Your task to perform on an android device: install app "Venmo" Image 0: 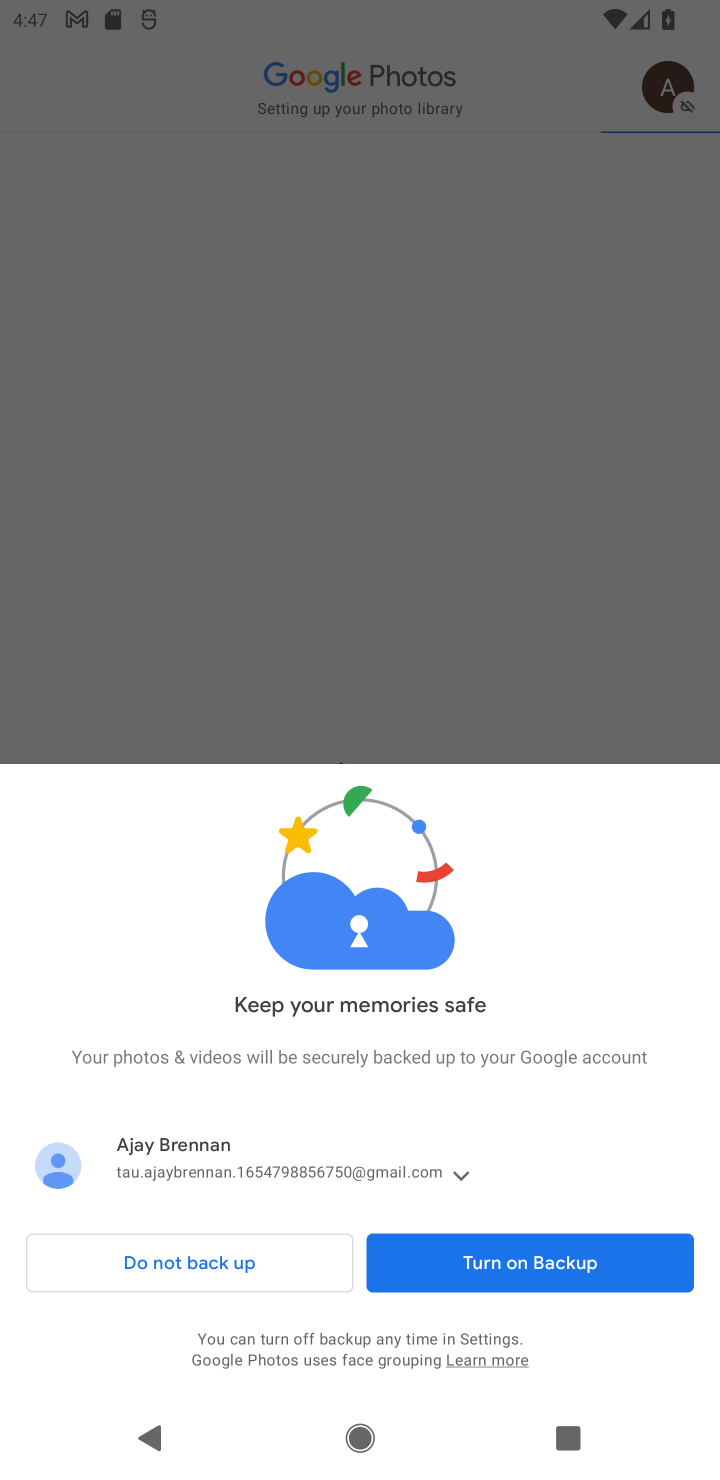
Step 0: press home button
Your task to perform on an android device: install app "Venmo" Image 1: 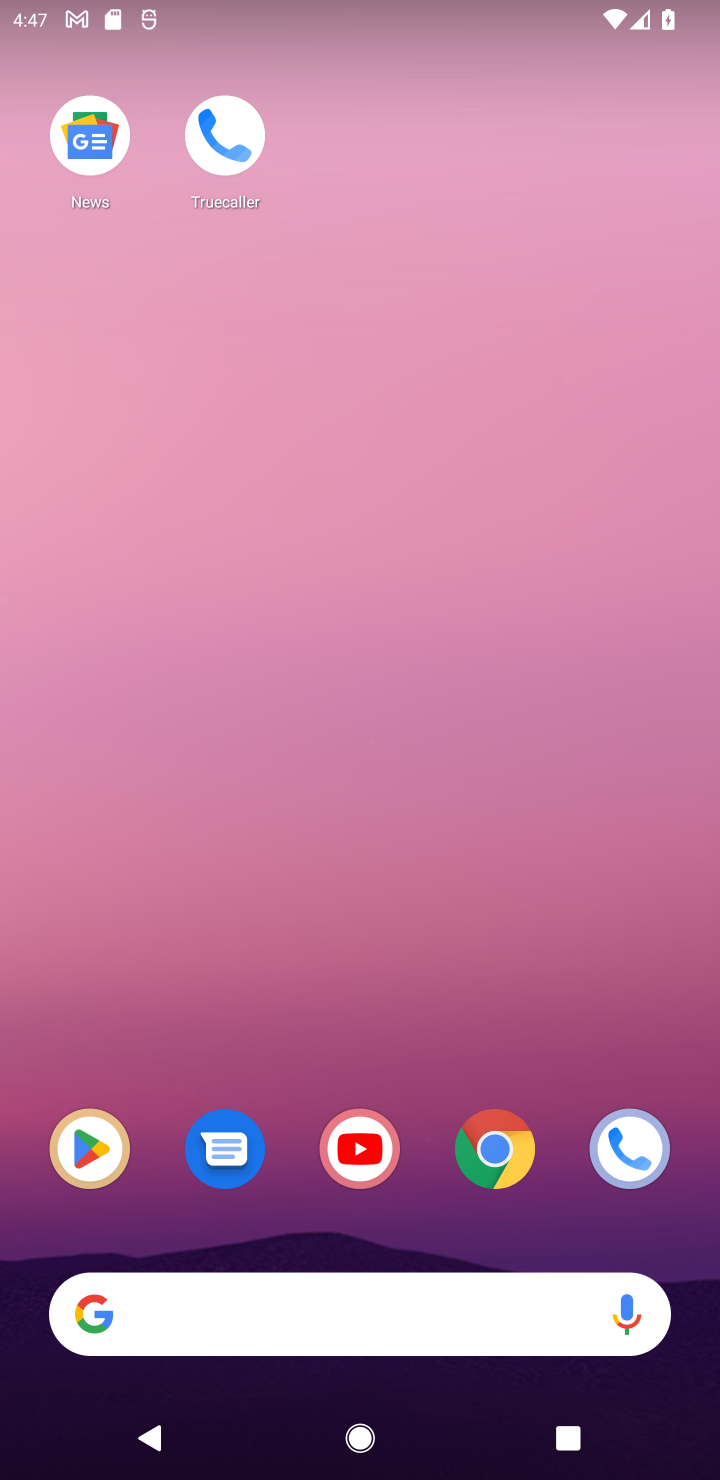
Step 1: click (100, 1163)
Your task to perform on an android device: install app "Venmo" Image 2: 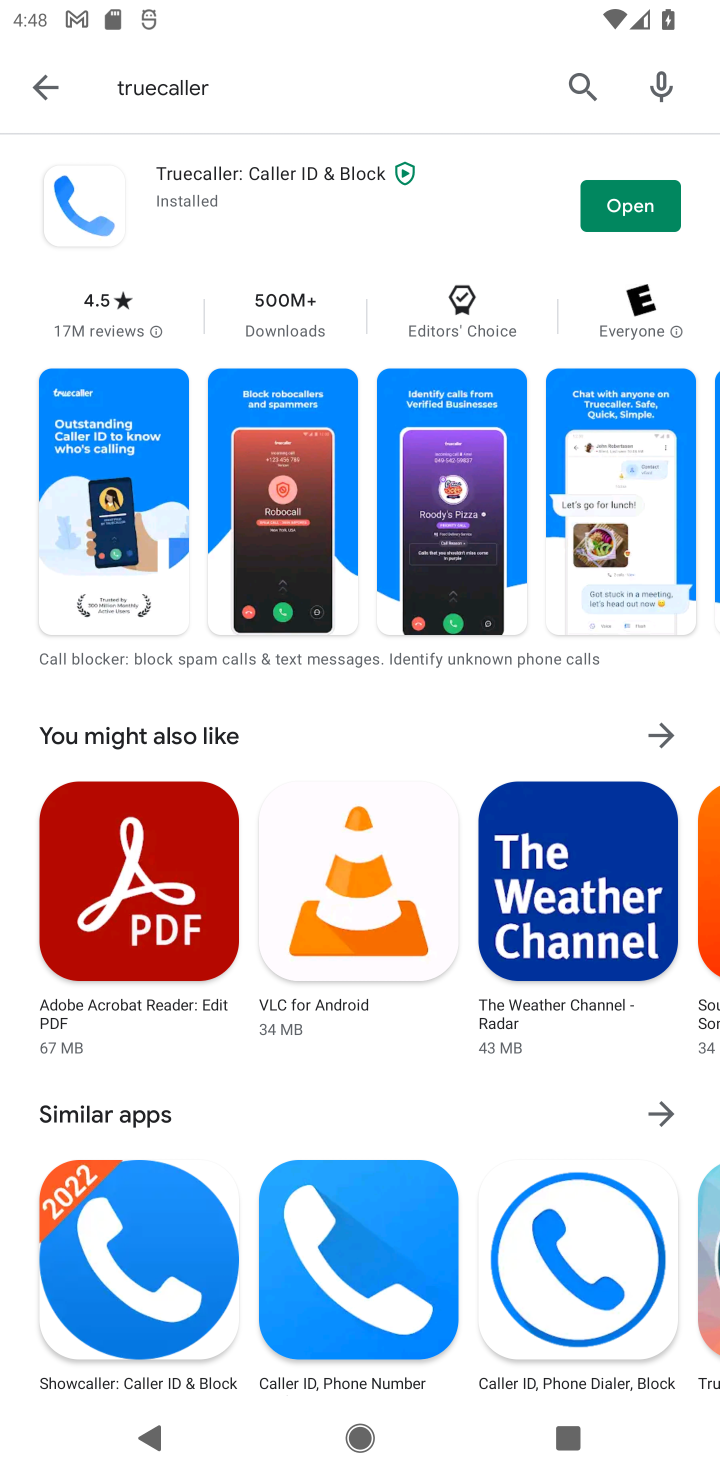
Step 2: click (31, 92)
Your task to perform on an android device: install app "Venmo" Image 3: 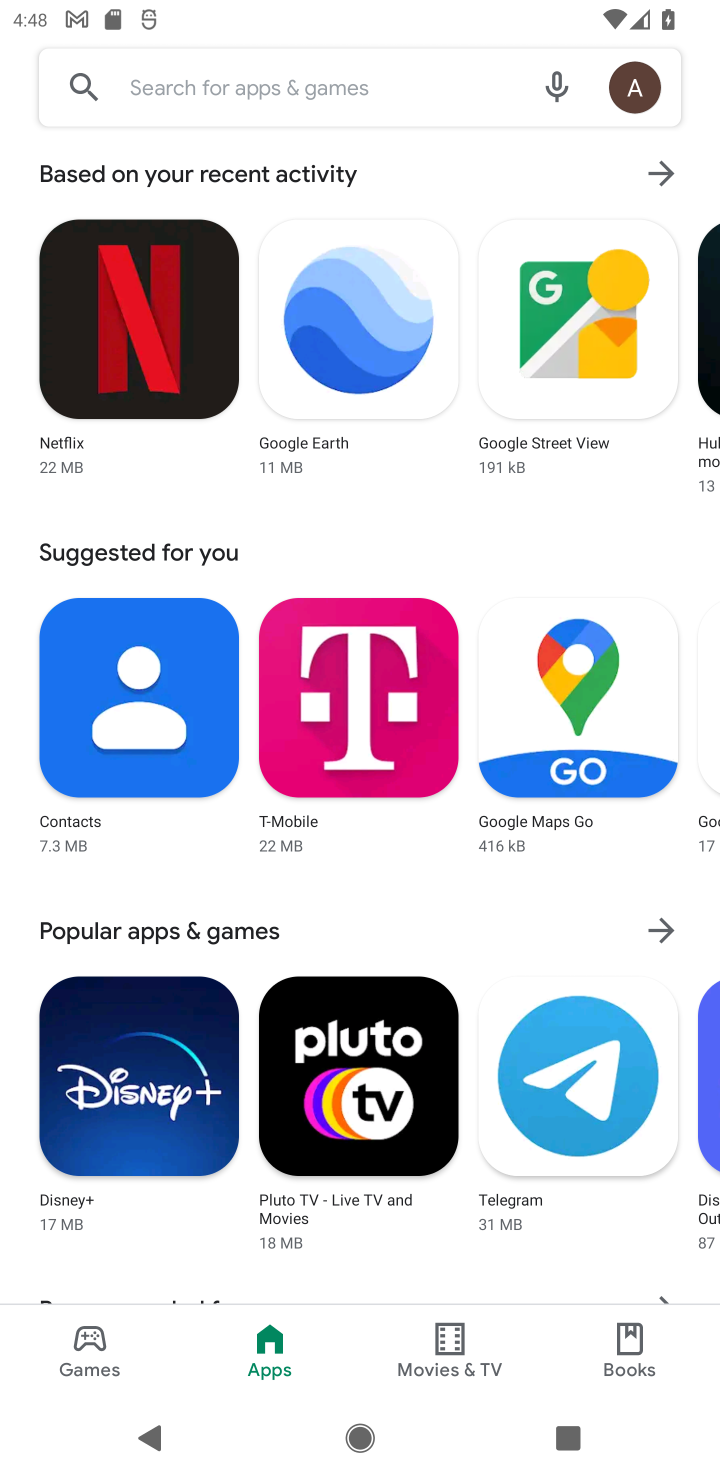
Step 3: click (181, 87)
Your task to perform on an android device: install app "Venmo" Image 4: 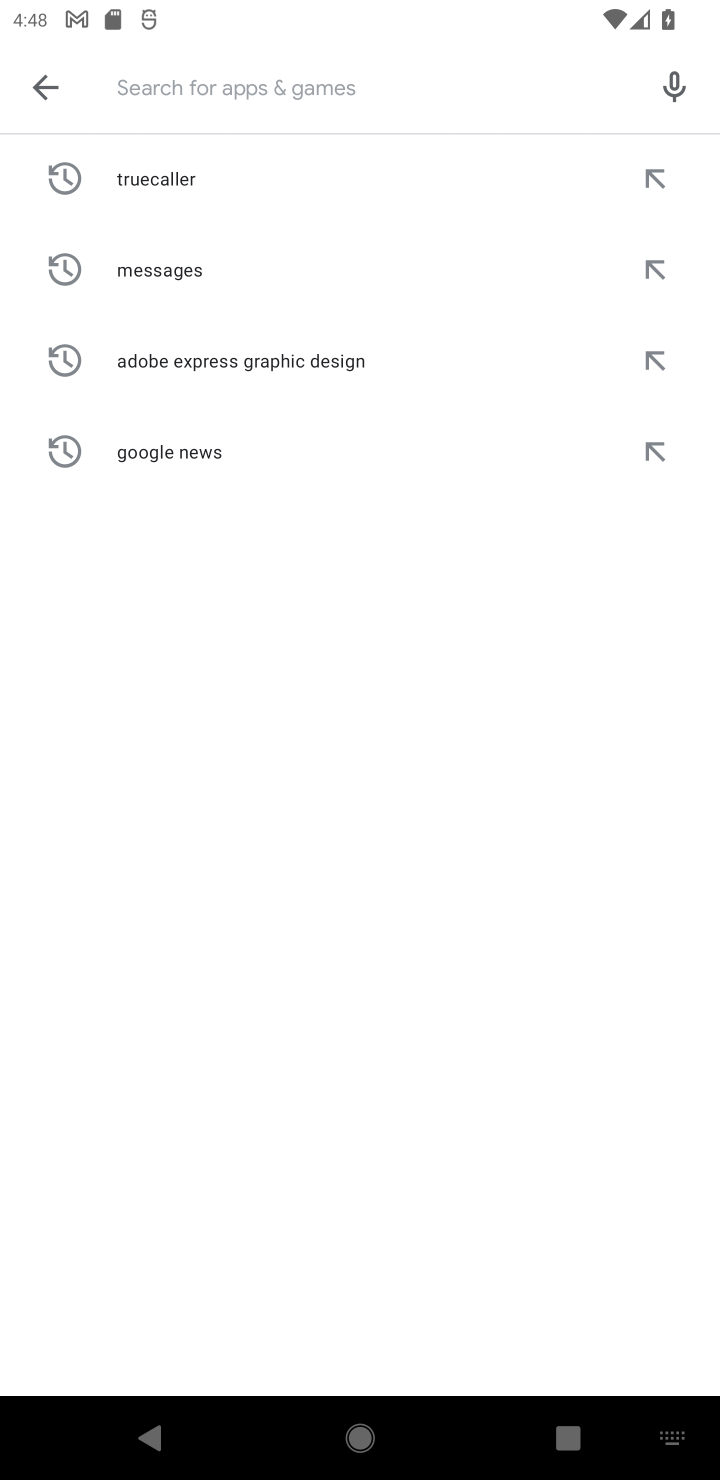
Step 4: type "Venmo"
Your task to perform on an android device: install app "Venmo" Image 5: 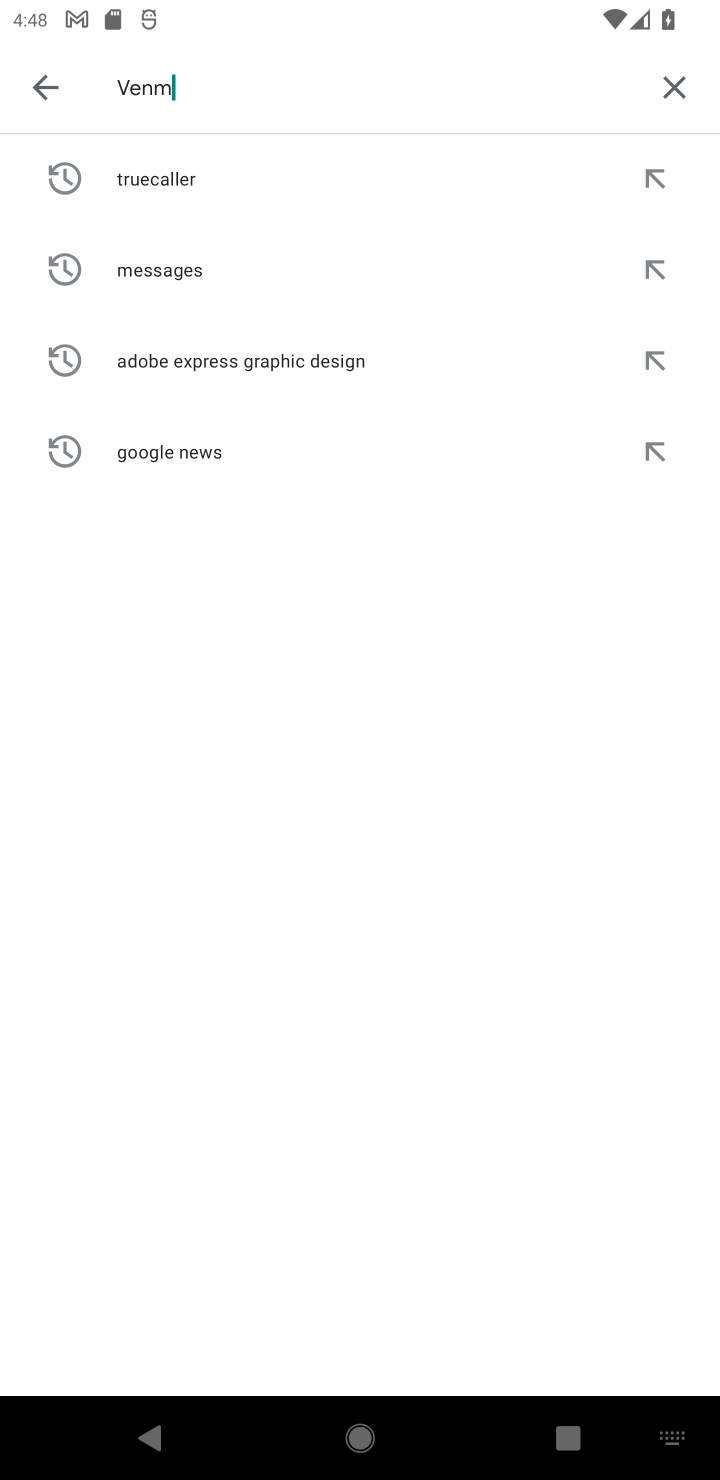
Step 5: type ""
Your task to perform on an android device: install app "Venmo" Image 6: 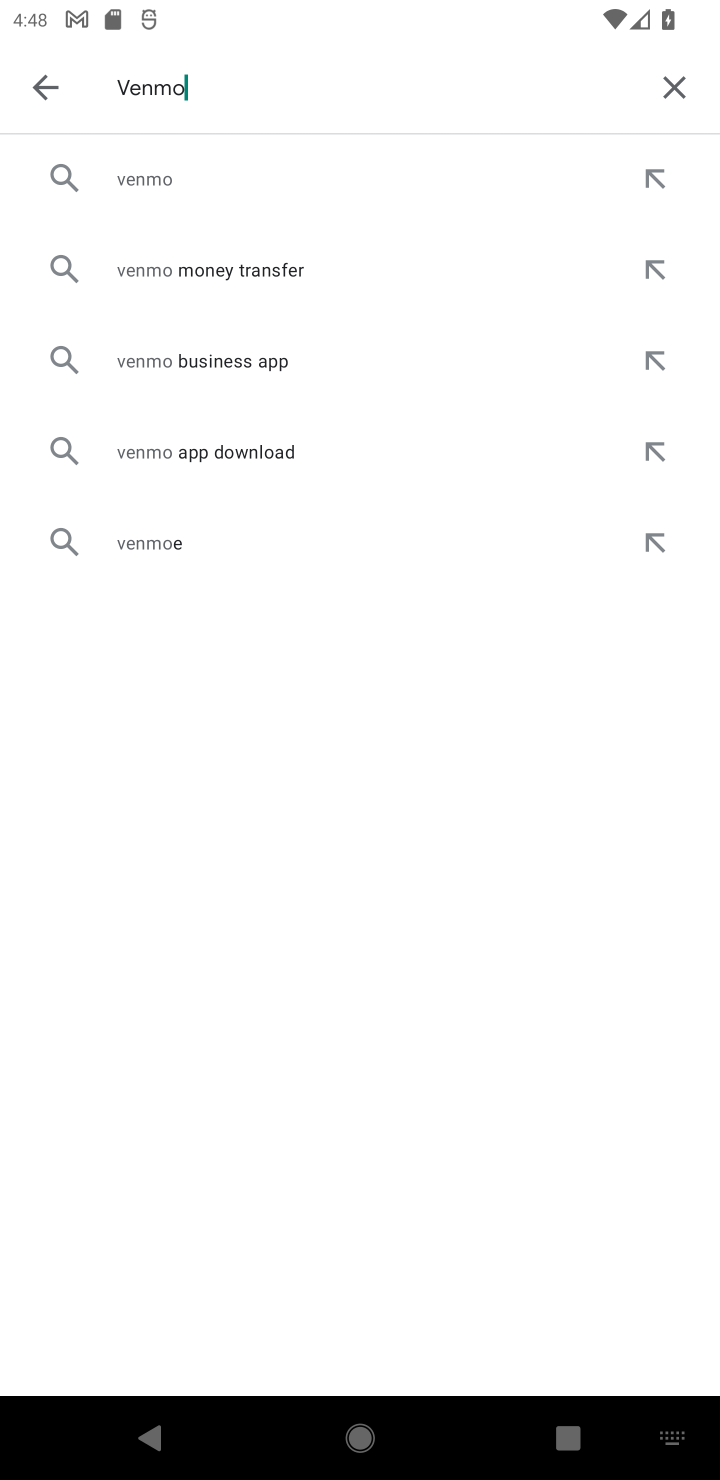
Step 6: click (113, 178)
Your task to perform on an android device: install app "Venmo" Image 7: 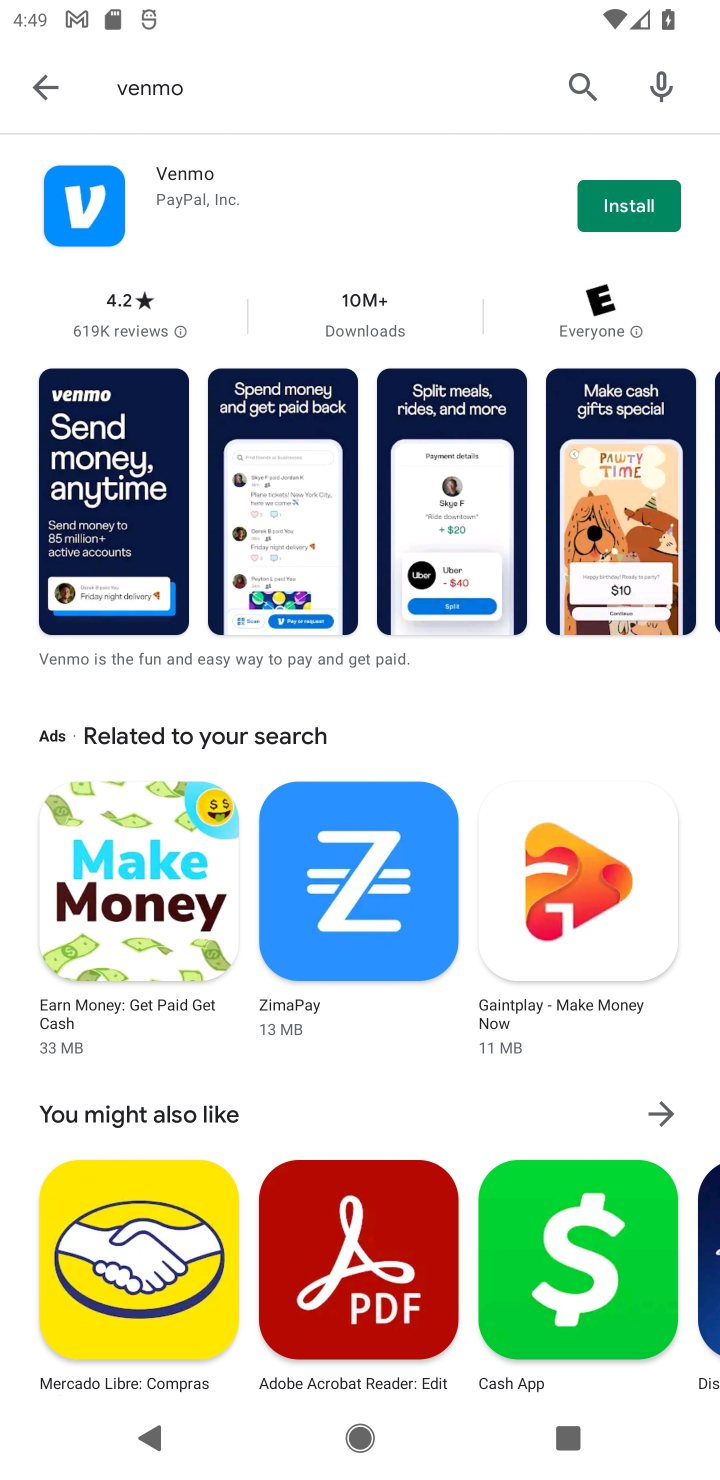
Step 7: click (645, 201)
Your task to perform on an android device: install app "Venmo" Image 8: 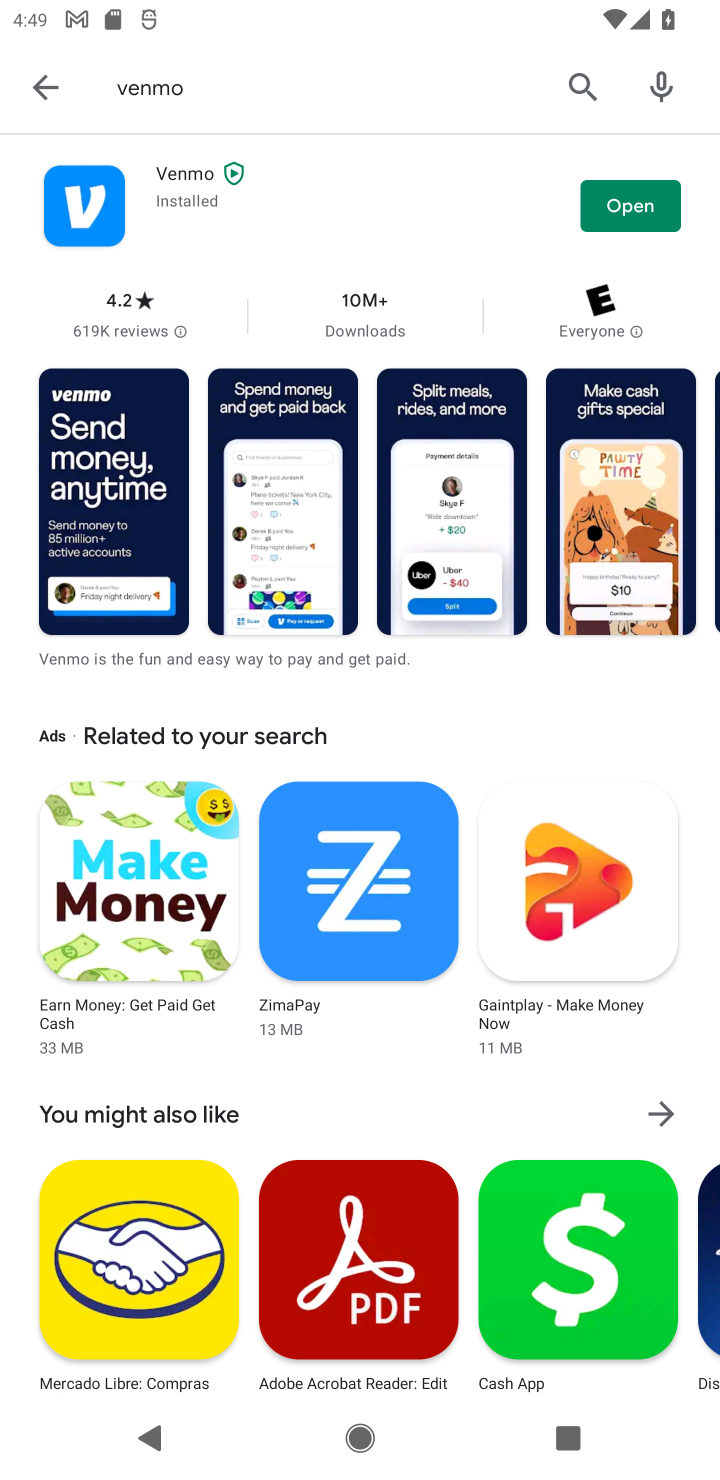
Step 8: task complete